Your task to perform on an android device: Set the phone to "Do not disturb". Image 0: 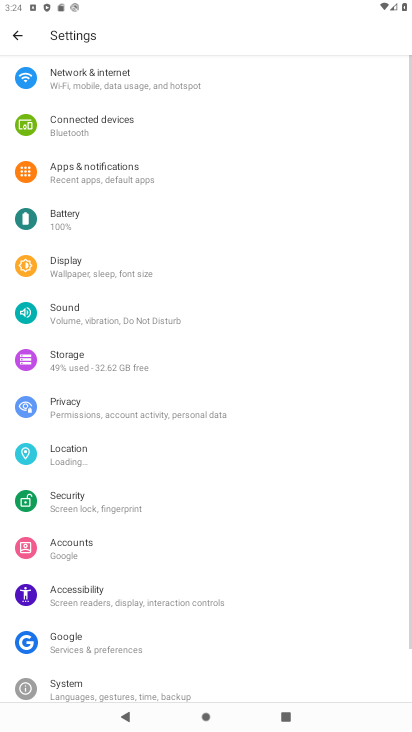
Step 0: drag from (304, 11) to (236, 505)
Your task to perform on an android device: Set the phone to "Do not disturb". Image 1: 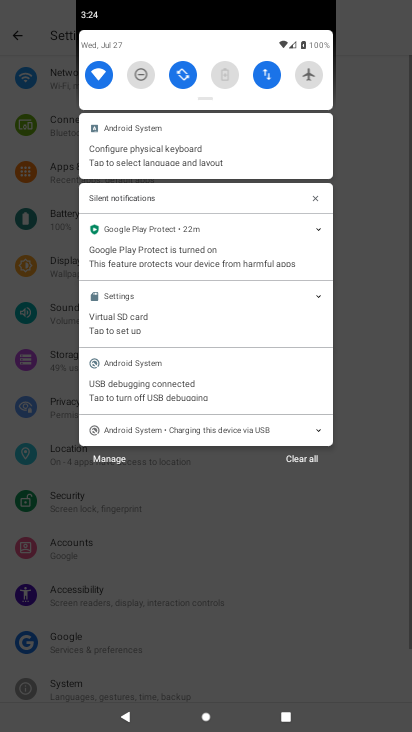
Step 1: click (136, 87)
Your task to perform on an android device: Set the phone to "Do not disturb". Image 2: 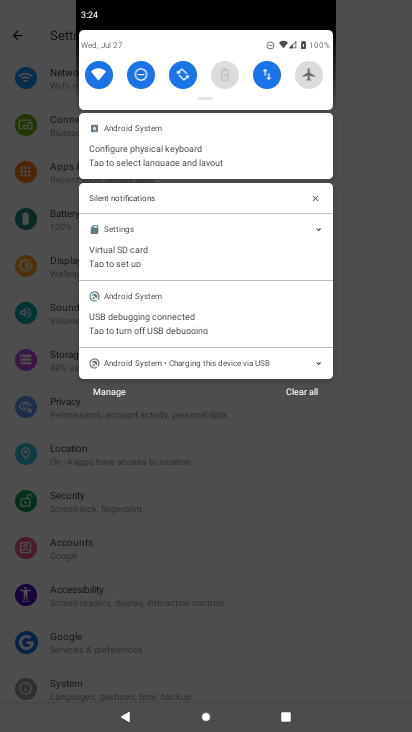
Step 2: task complete